Your task to perform on an android device: turn smart compose on in the gmail app Image 0: 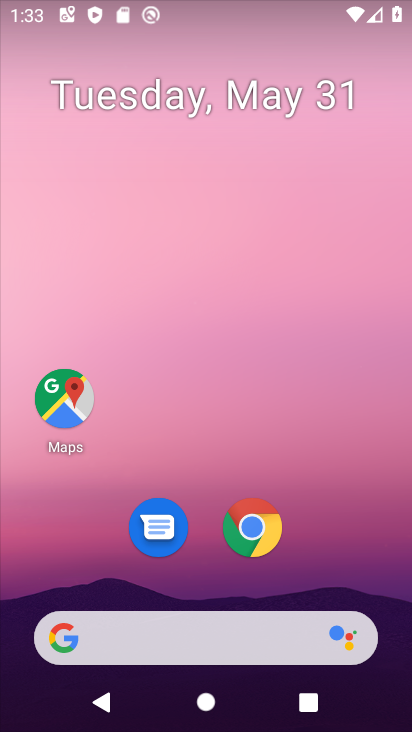
Step 0: drag from (344, 530) to (390, 102)
Your task to perform on an android device: turn smart compose on in the gmail app Image 1: 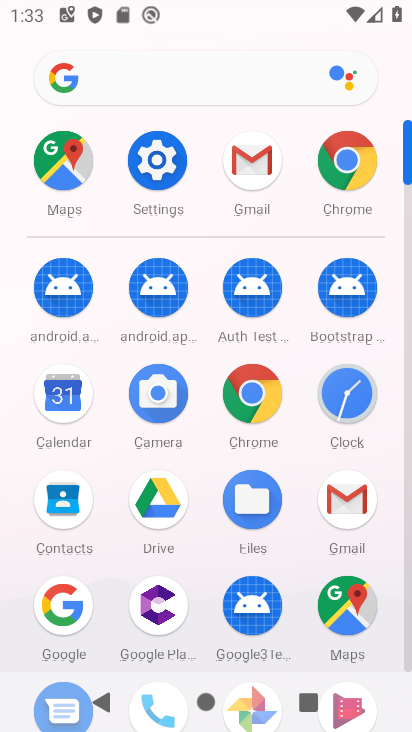
Step 1: click (252, 168)
Your task to perform on an android device: turn smart compose on in the gmail app Image 2: 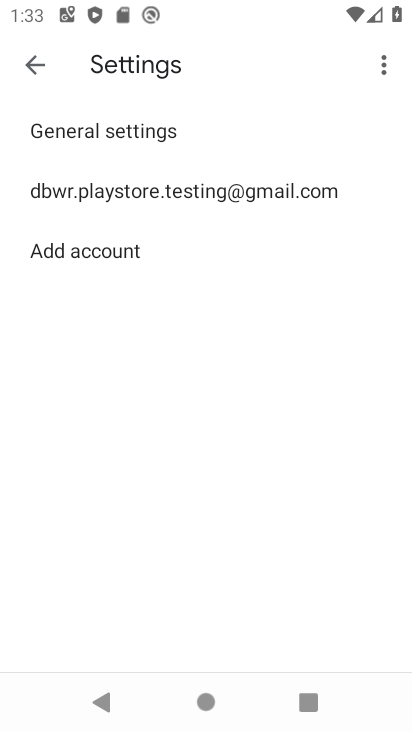
Step 2: click (50, 72)
Your task to perform on an android device: turn smart compose on in the gmail app Image 3: 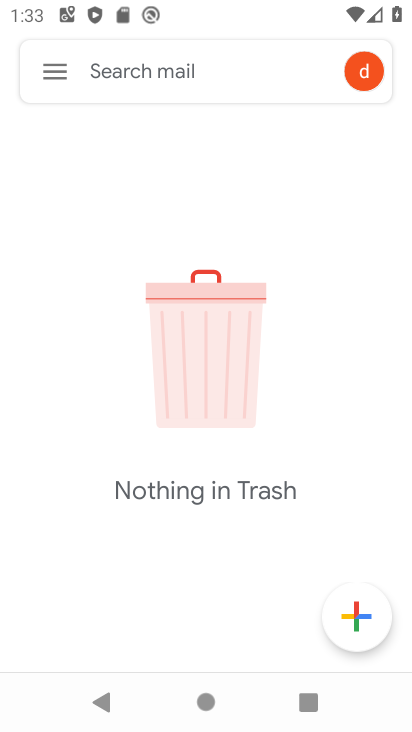
Step 3: click (51, 70)
Your task to perform on an android device: turn smart compose on in the gmail app Image 4: 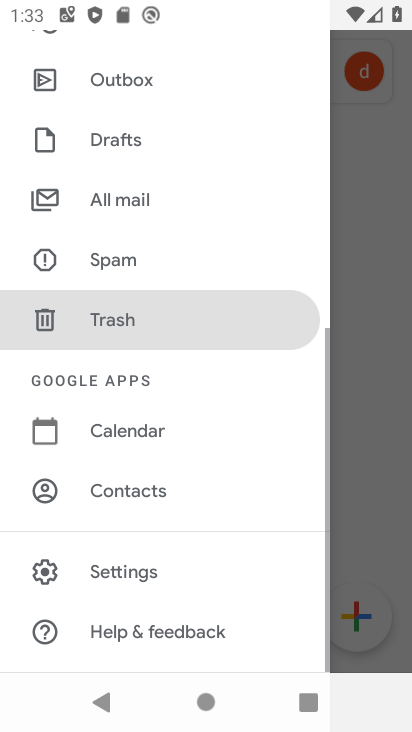
Step 4: drag from (139, 518) to (215, 171)
Your task to perform on an android device: turn smart compose on in the gmail app Image 5: 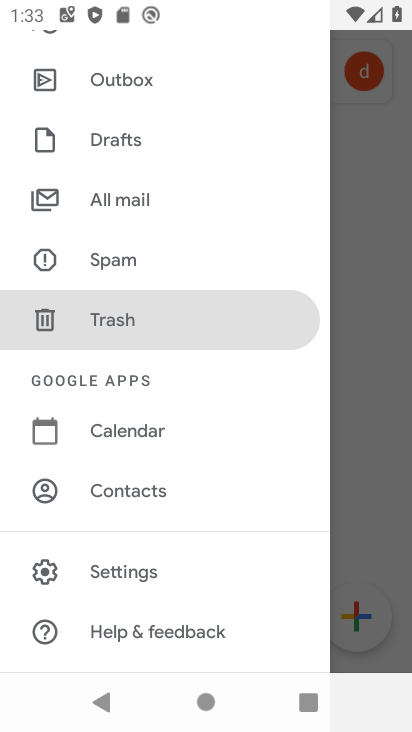
Step 5: click (104, 597)
Your task to perform on an android device: turn smart compose on in the gmail app Image 6: 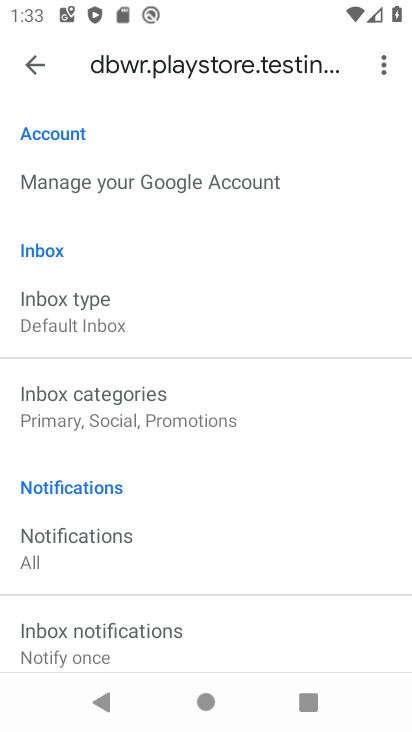
Step 6: task complete